Your task to perform on an android device: Open my contact list Image 0: 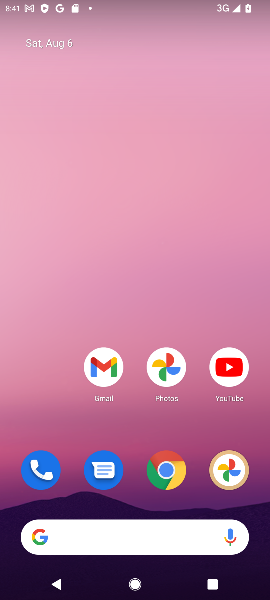
Step 0: drag from (172, 352) to (173, 206)
Your task to perform on an android device: Open my contact list Image 1: 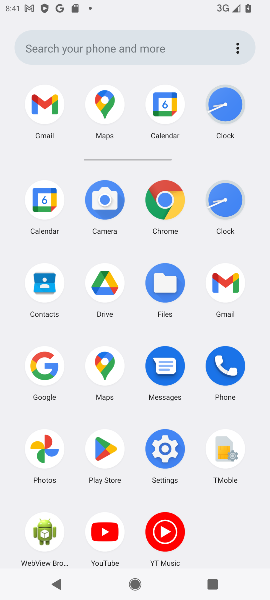
Step 1: click (56, 296)
Your task to perform on an android device: Open my contact list Image 2: 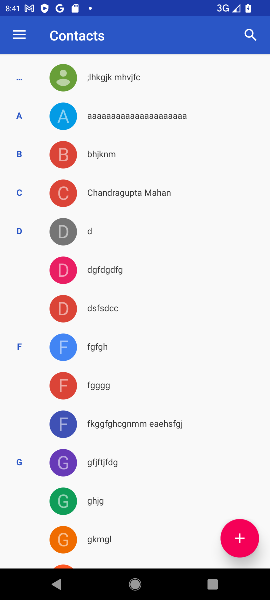
Step 2: task complete